Your task to perform on an android device: View the shopping cart on newegg.com. Search for usb-c to usb-a on newegg.com, select the first entry, add it to the cart, then select checkout. Image 0: 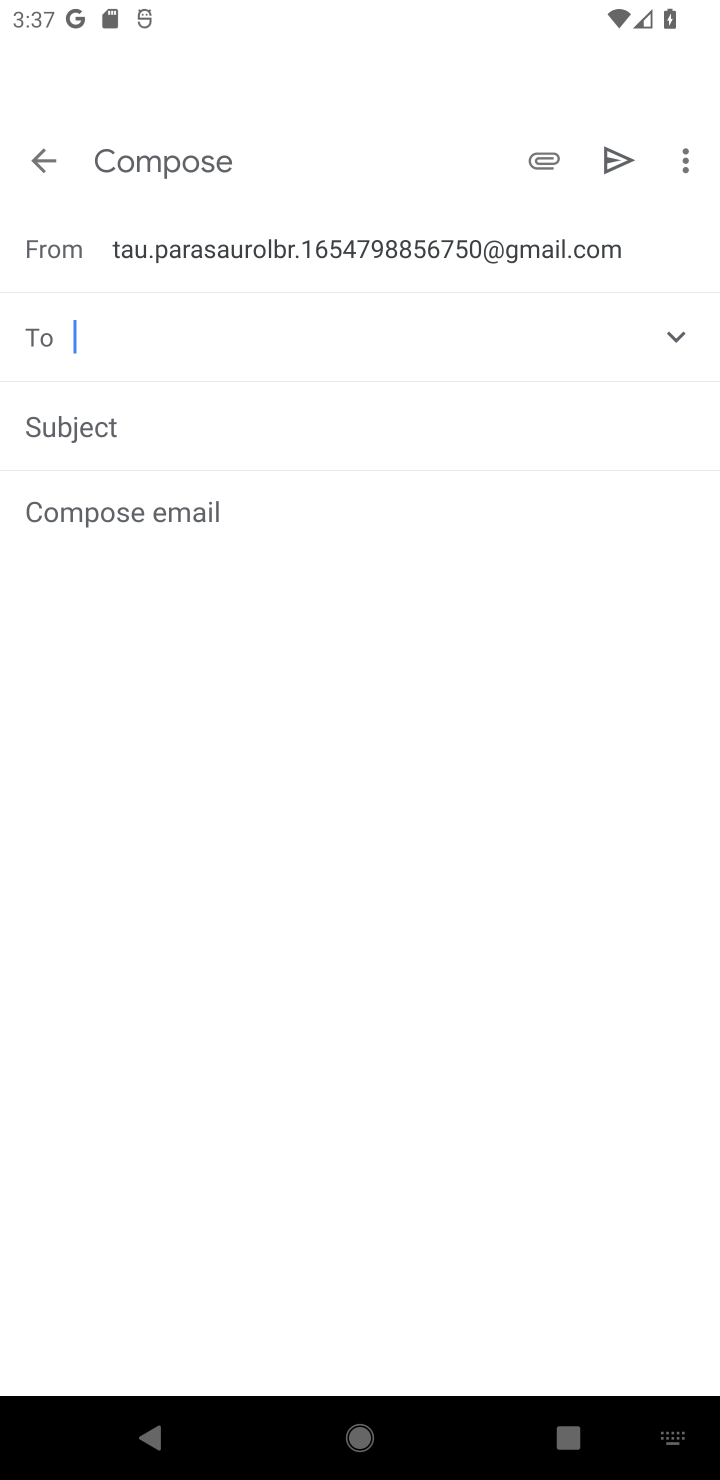
Step 0: press home button
Your task to perform on an android device: View the shopping cart on newegg.com. Search for usb-c to usb-a on newegg.com, select the first entry, add it to the cart, then select checkout. Image 1: 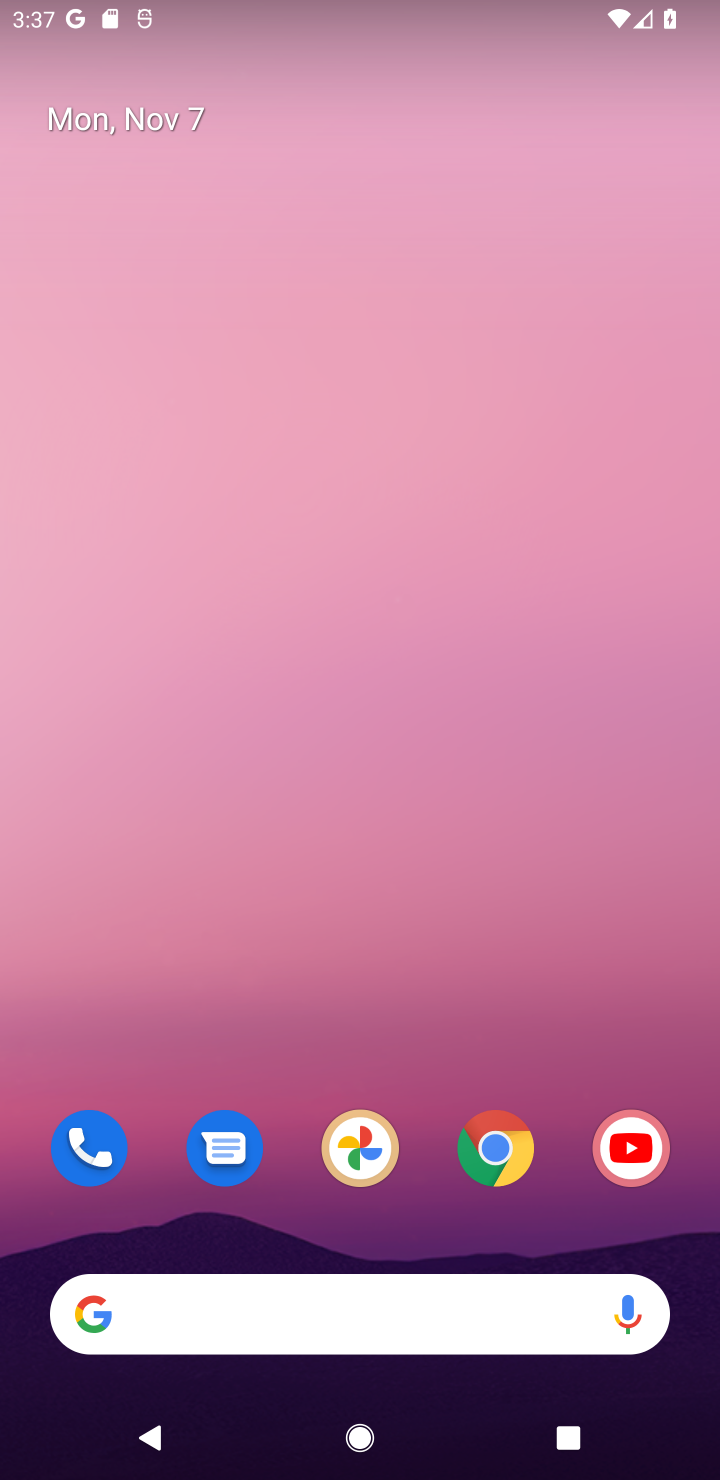
Step 1: drag from (511, 1206) to (538, 33)
Your task to perform on an android device: View the shopping cart on newegg.com. Search for usb-c to usb-a on newegg.com, select the first entry, add it to the cart, then select checkout. Image 2: 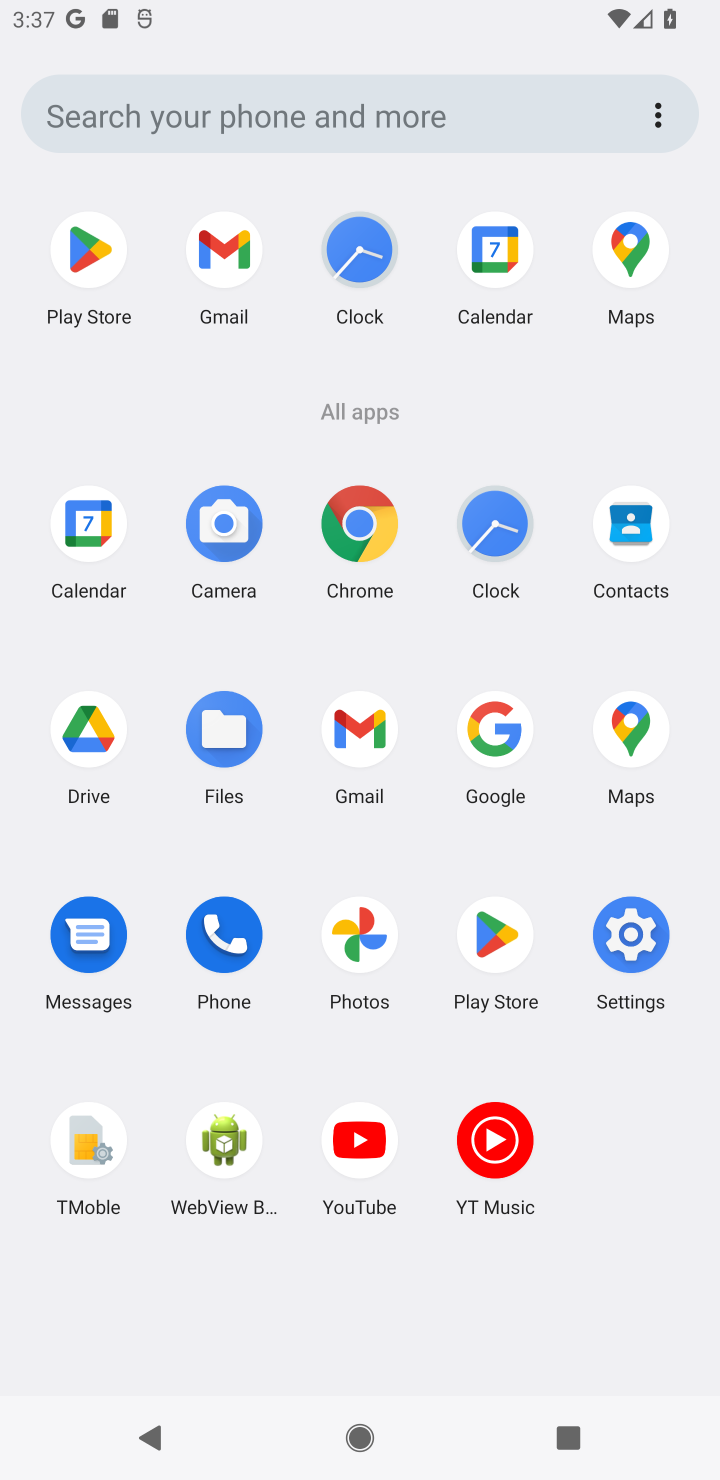
Step 2: click (337, 522)
Your task to perform on an android device: View the shopping cart on newegg.com. Search for usb-c to usb-a on newegg.com, select the first entry, add it to the cart, then select checkout. Image 3: 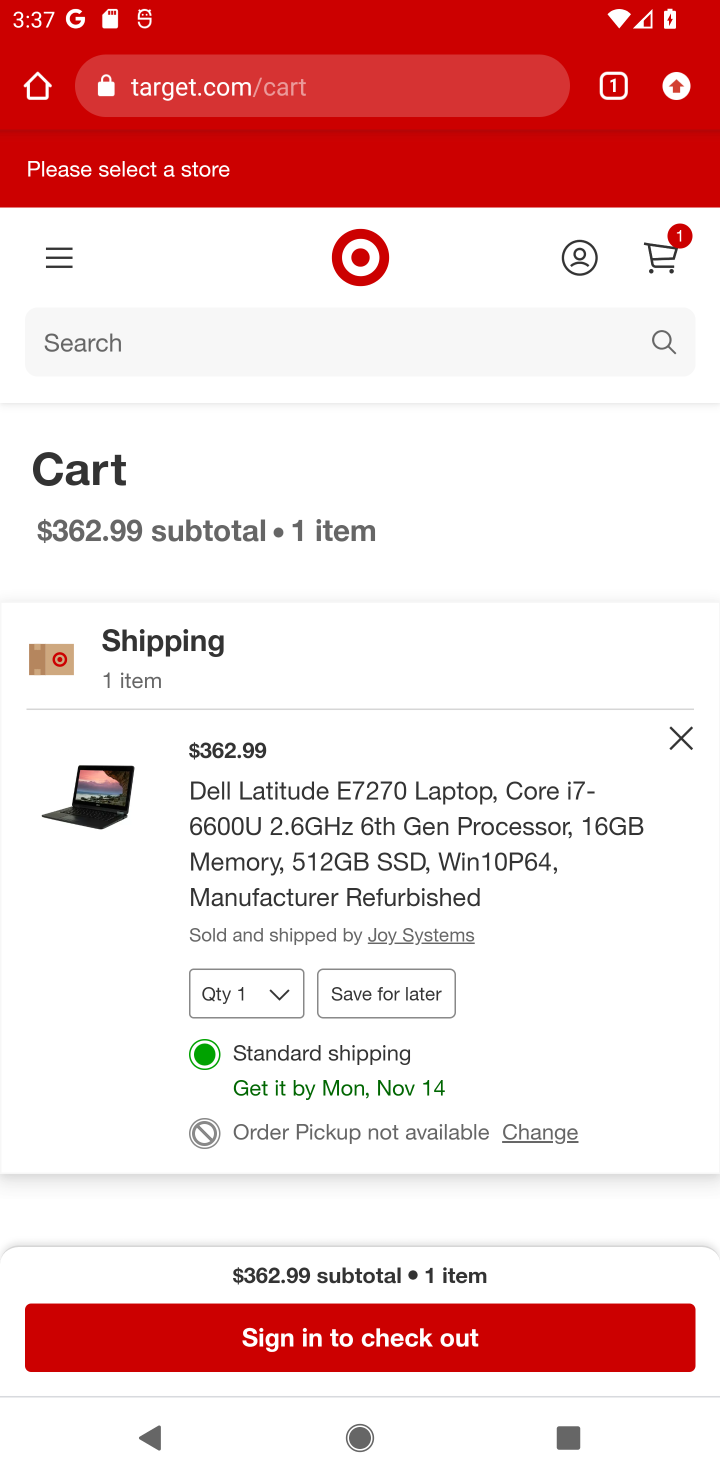
Step 3: click (246, 107)
Your task to perform on an android device: View the shopping cart on newegg.com. Search for usb-c to usb-a on newegg.com, select the first entry, add it to the cart, then select checkout. Image 4: 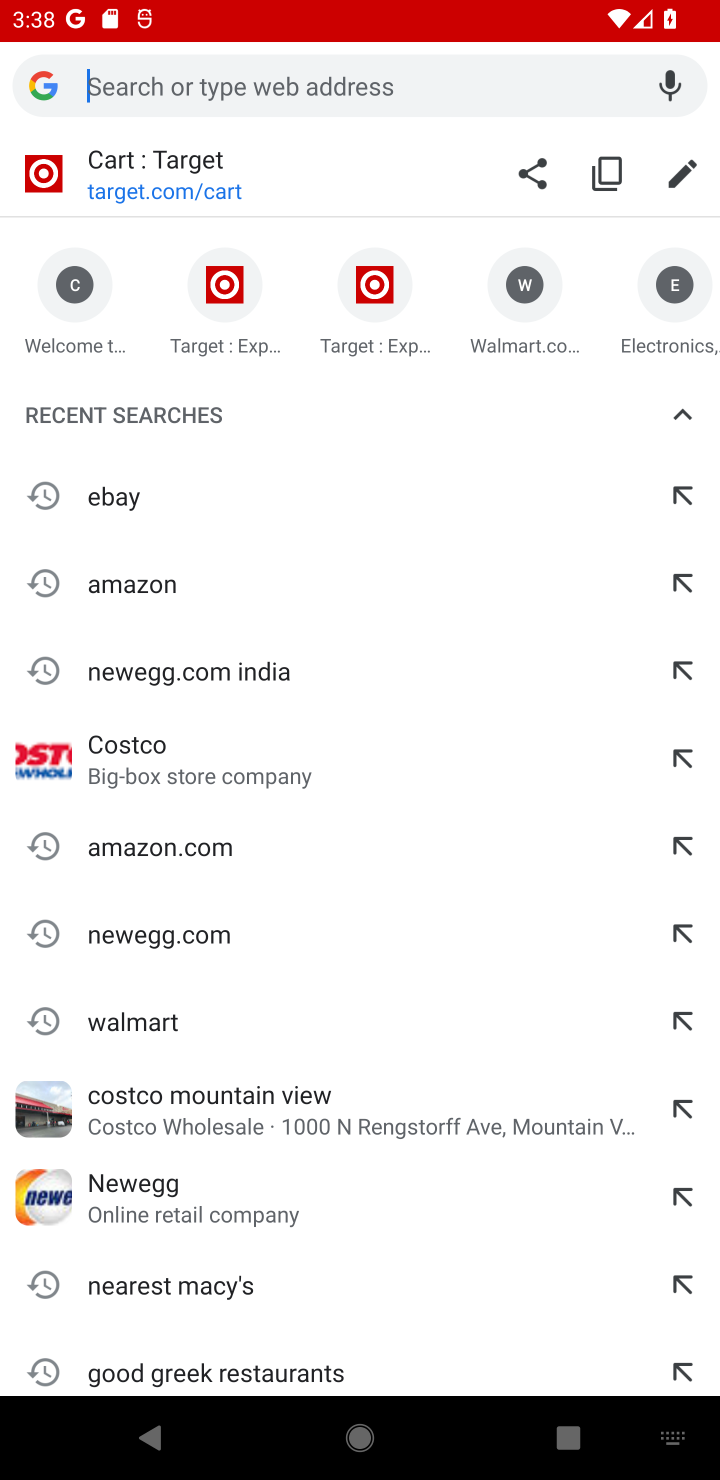
Step 4: type "newegg.com."
Your task to perform on an android device: View the shopping cart on newegg.com. Search for usb-c to usb-a on newegg.com, select the first entry, add it to the cart, then select checkout. Image 5: 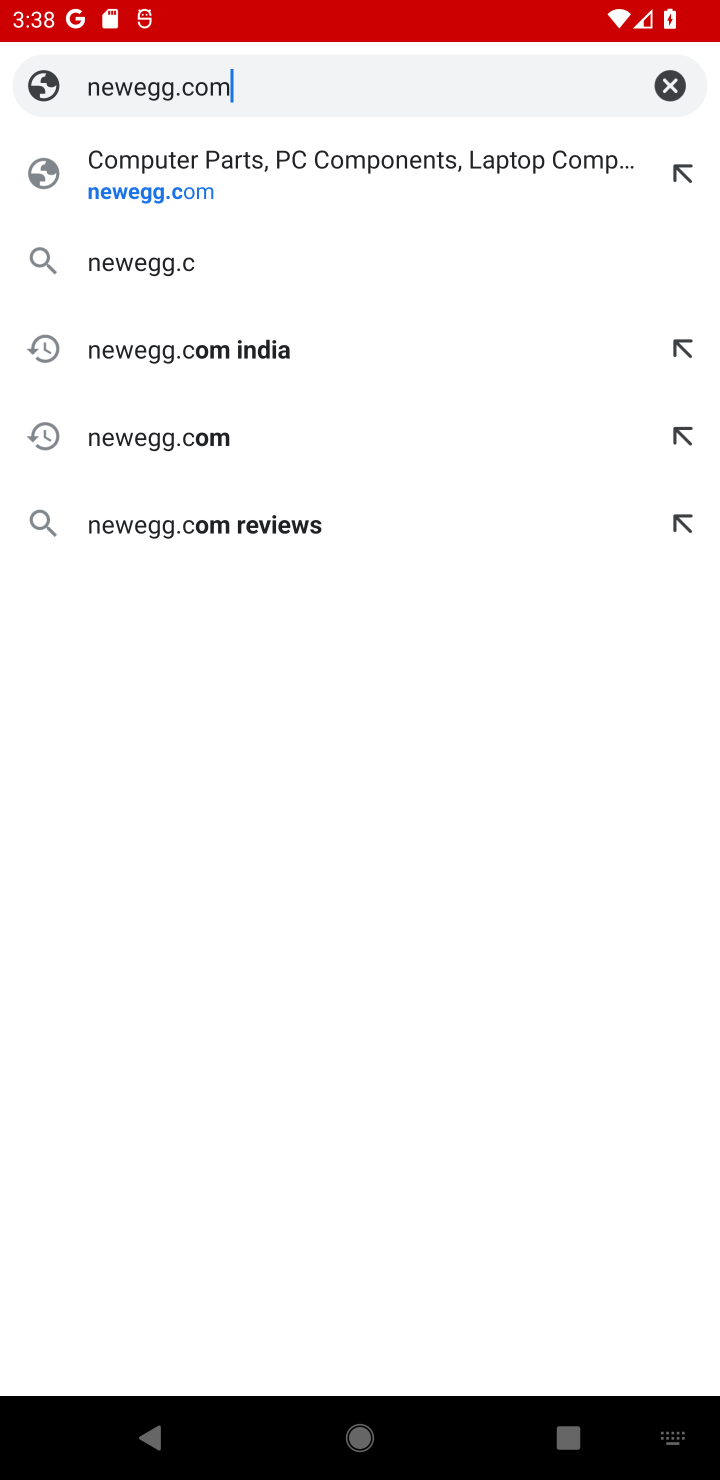
Step 5: press enter
Your task to perform on an android device: View the shopping cart on newegg.com. Search for usb-c to usb-a on newegg.com, select the first entry, add it to the cart, then select checkout. Image 6: 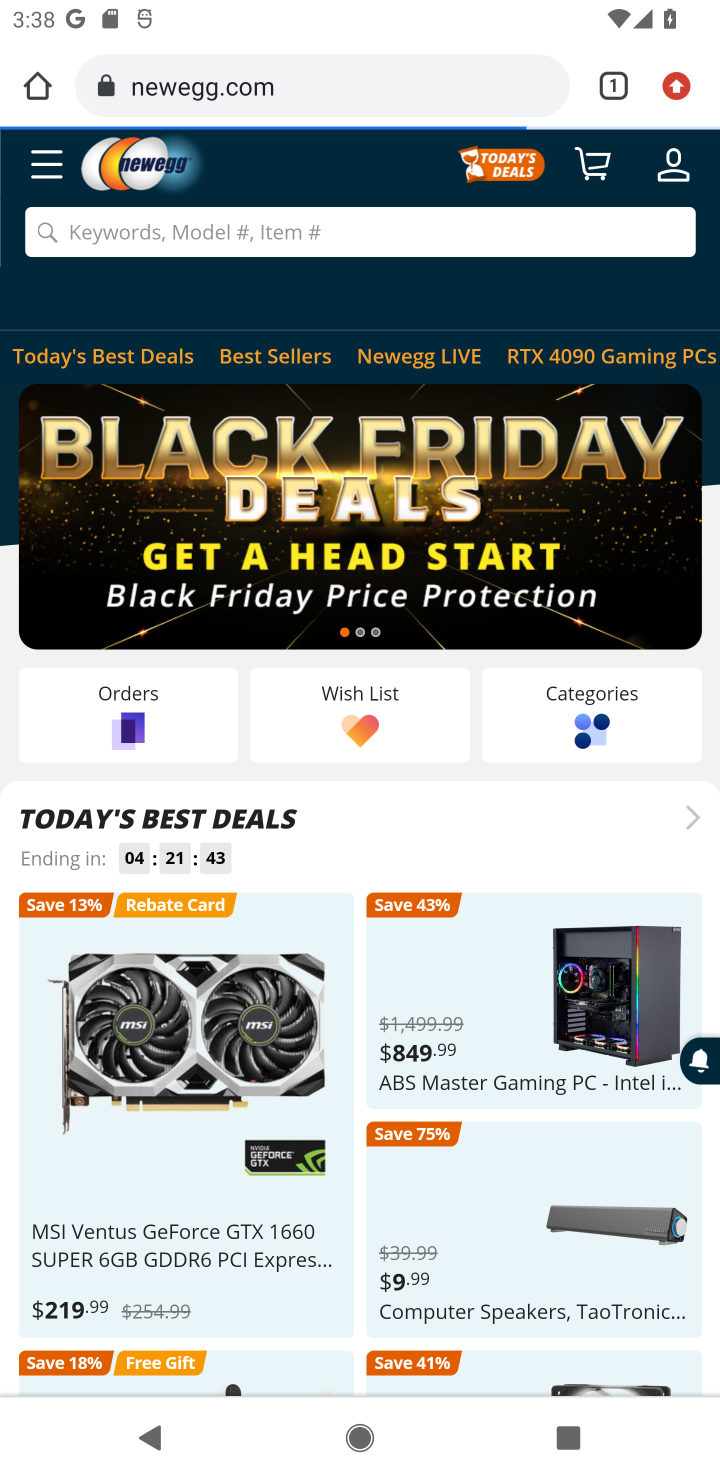
Step 6: click (458, 237)
Your task to perform on an android device: View the shopping cart on newegg.com. Search for usb-c to usb-a on newegg.com, select the first entry, add it to the cart, then select checkout. Image 7: 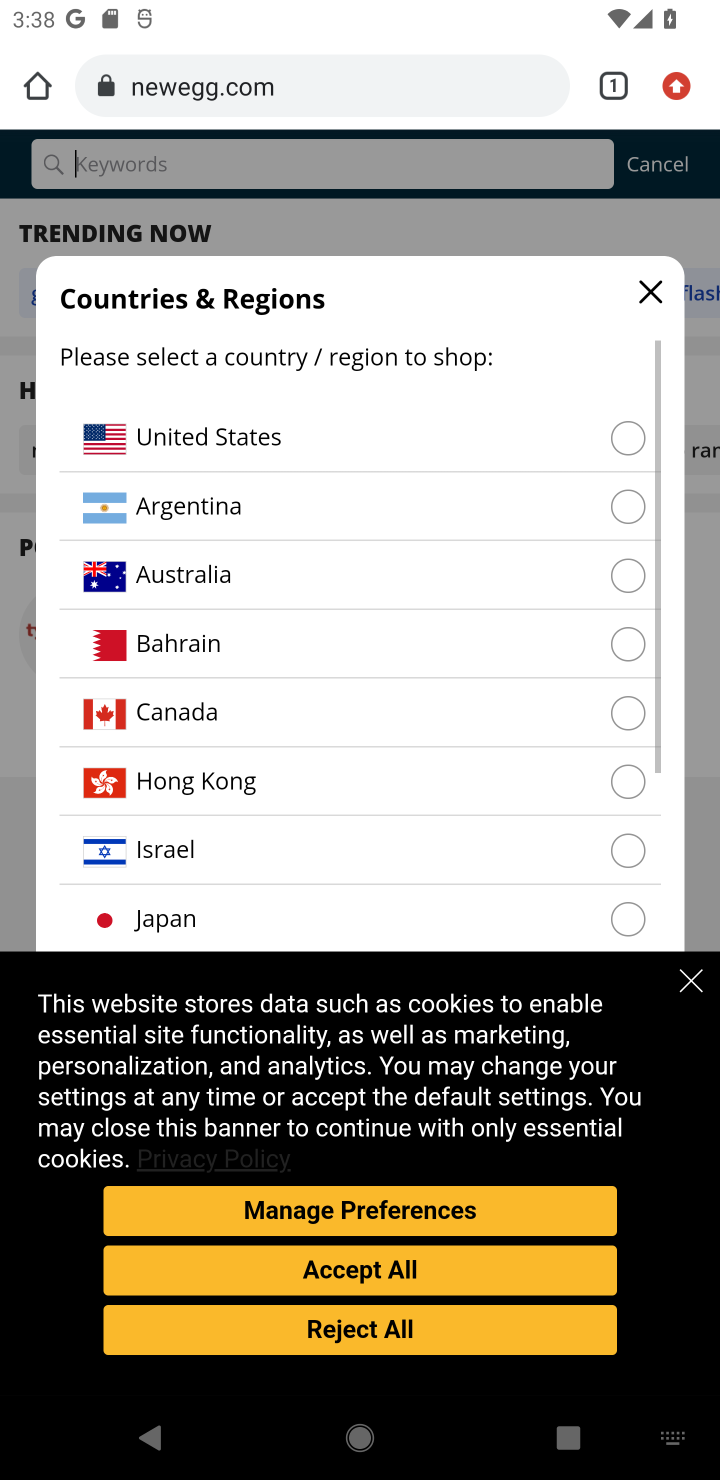
Step 7: click (267, 438)
Your task to perform on an android device: View the shopping cart on newegg.com. Search for usb-c to usb-a on newegg.com, select the first entry, add it to the cart, then select checkout. Image 8: 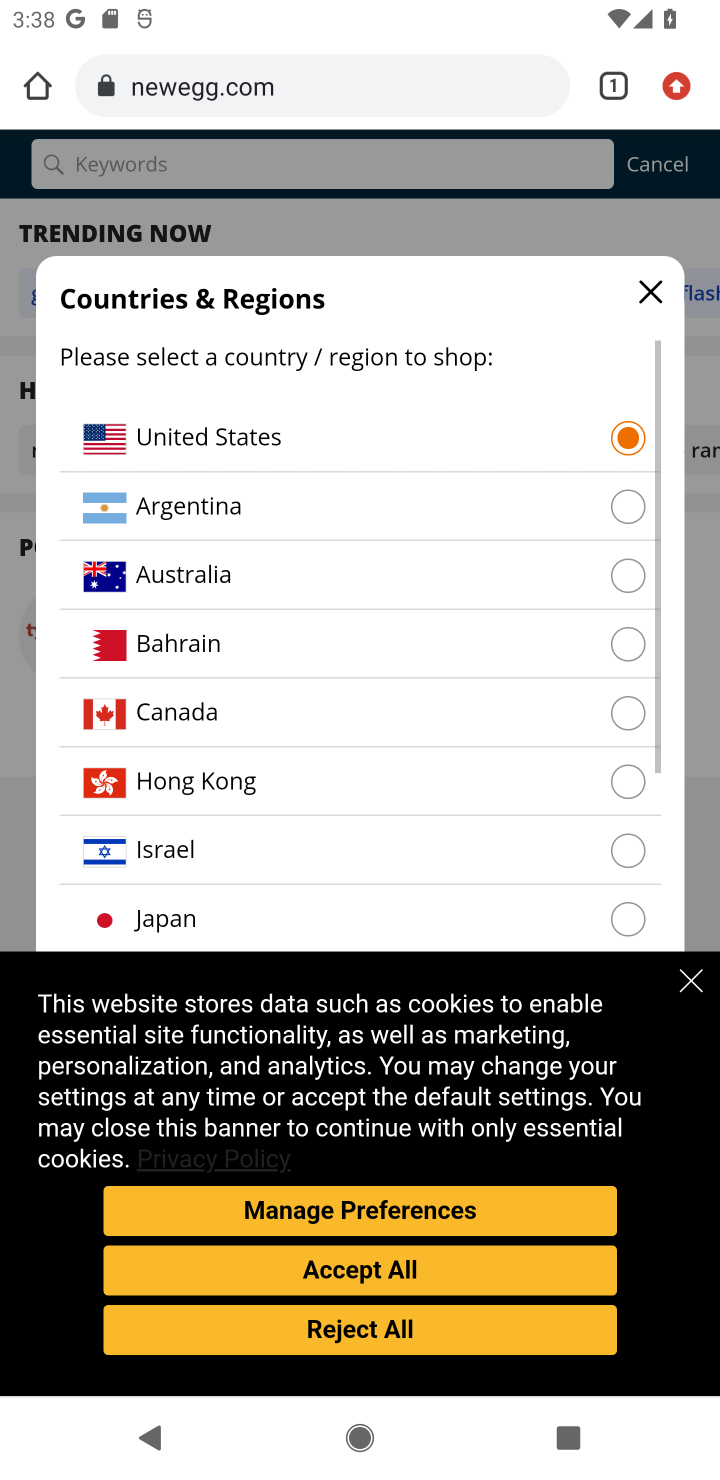
Step 8: click (681, 983)
Your task to perform on an android device: View the shopping cart on newegg.com. Search for usb-c to usb-a on newegg.com, select the first entry, add it to the cart, then select checkout. Image 9: 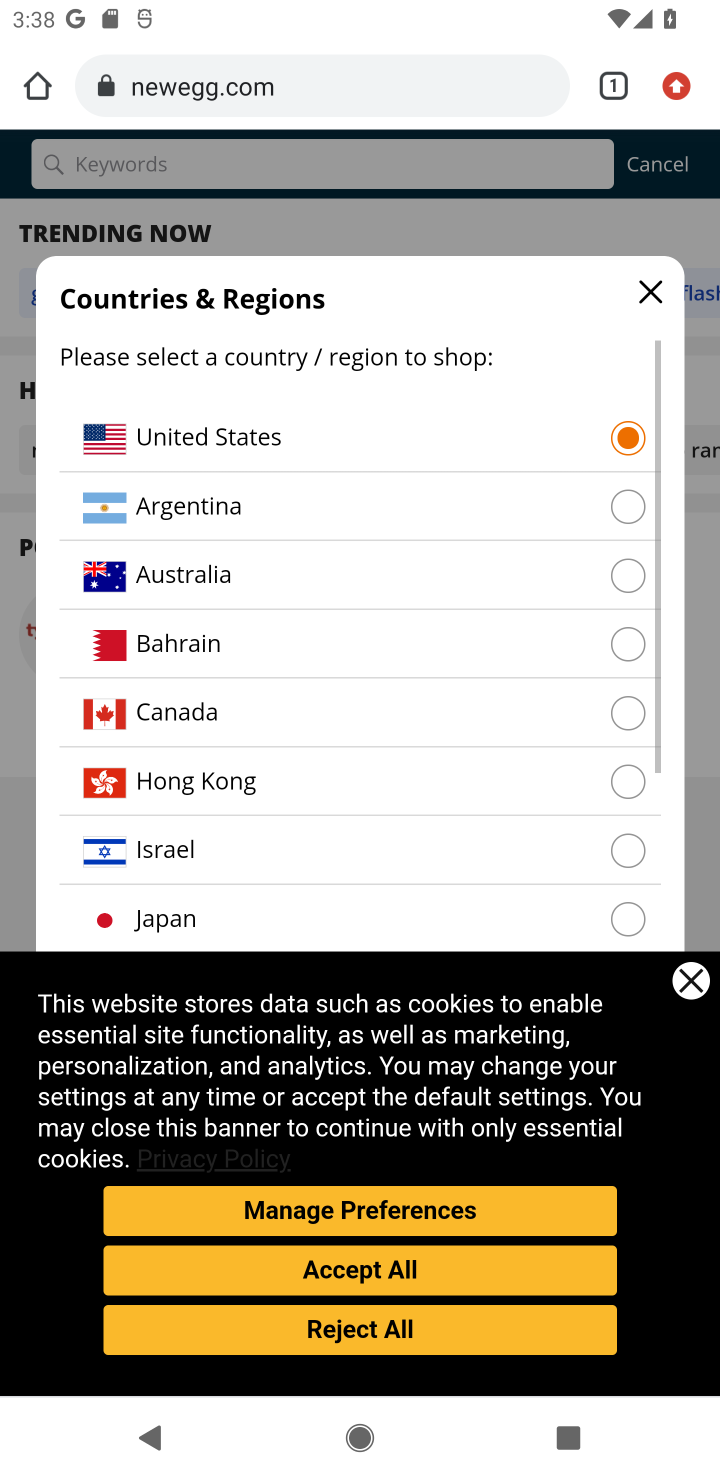
Step 9: click (695, 987)
Your task to perform on an android device: View the shopping cart on newegg.com. Search for usb-c to usb-a on newegg.com, select the first entry, add it to the cart, then select checkout. Image 10: 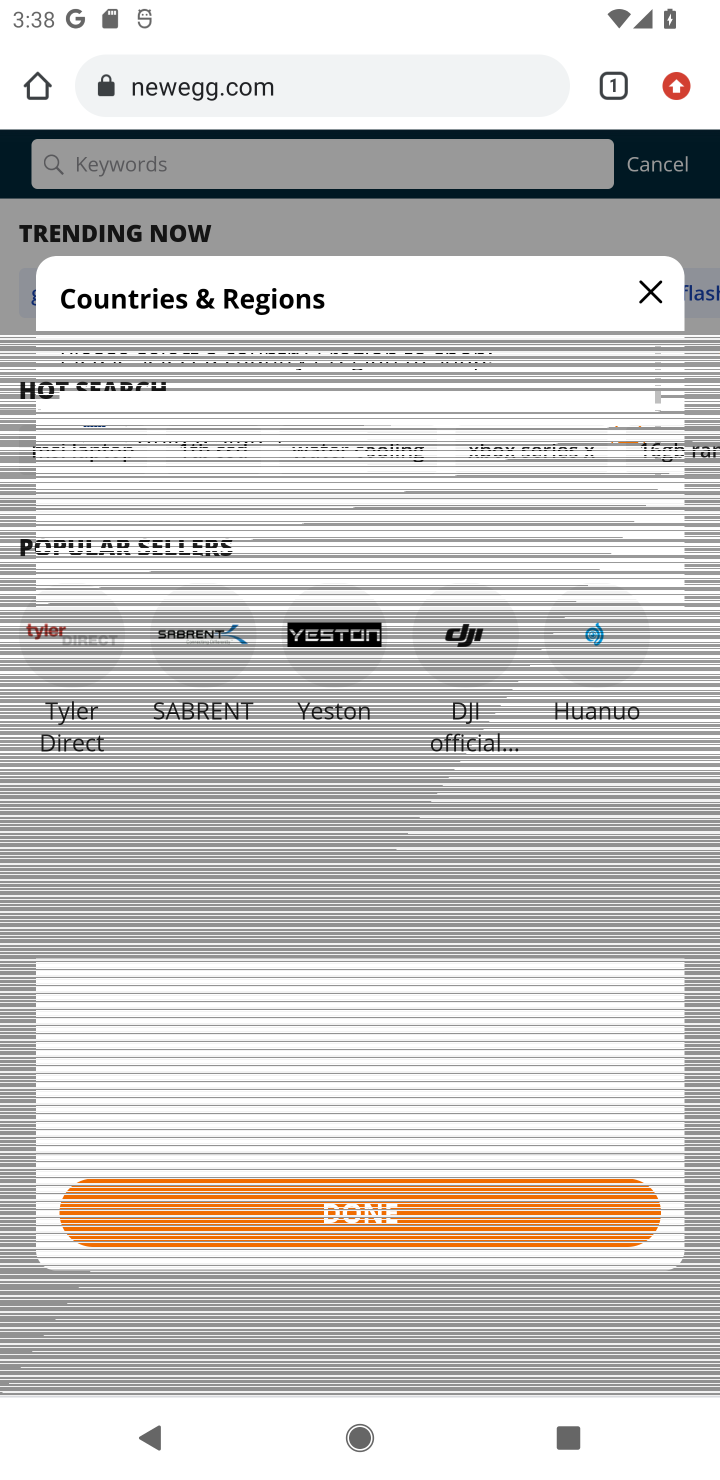
Step 10: click (371, 1216)
Your task to perform on an android device: View the shopping cart on newegg.com. Search for usb-c to usb-a on newegg.com, select the first entry, add it to the cart, then select checkout. Image 11: 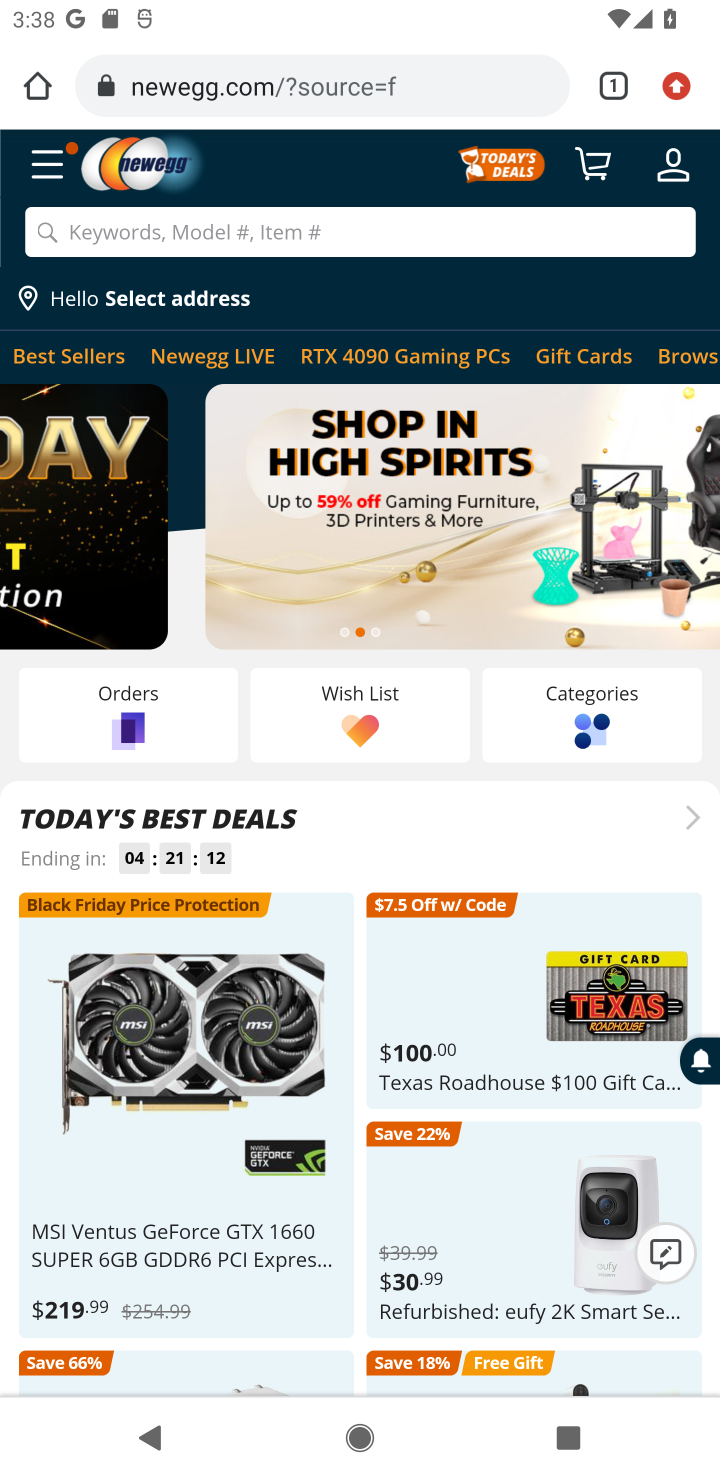
Step 11: type "usb-c to usb-a "
Your task to perform on an android device: View the shopping cart on newegg.com. Search for usb-c to usb-a on newegg.com, select the first entry, add it to the cart, then select checkout. Image 12: 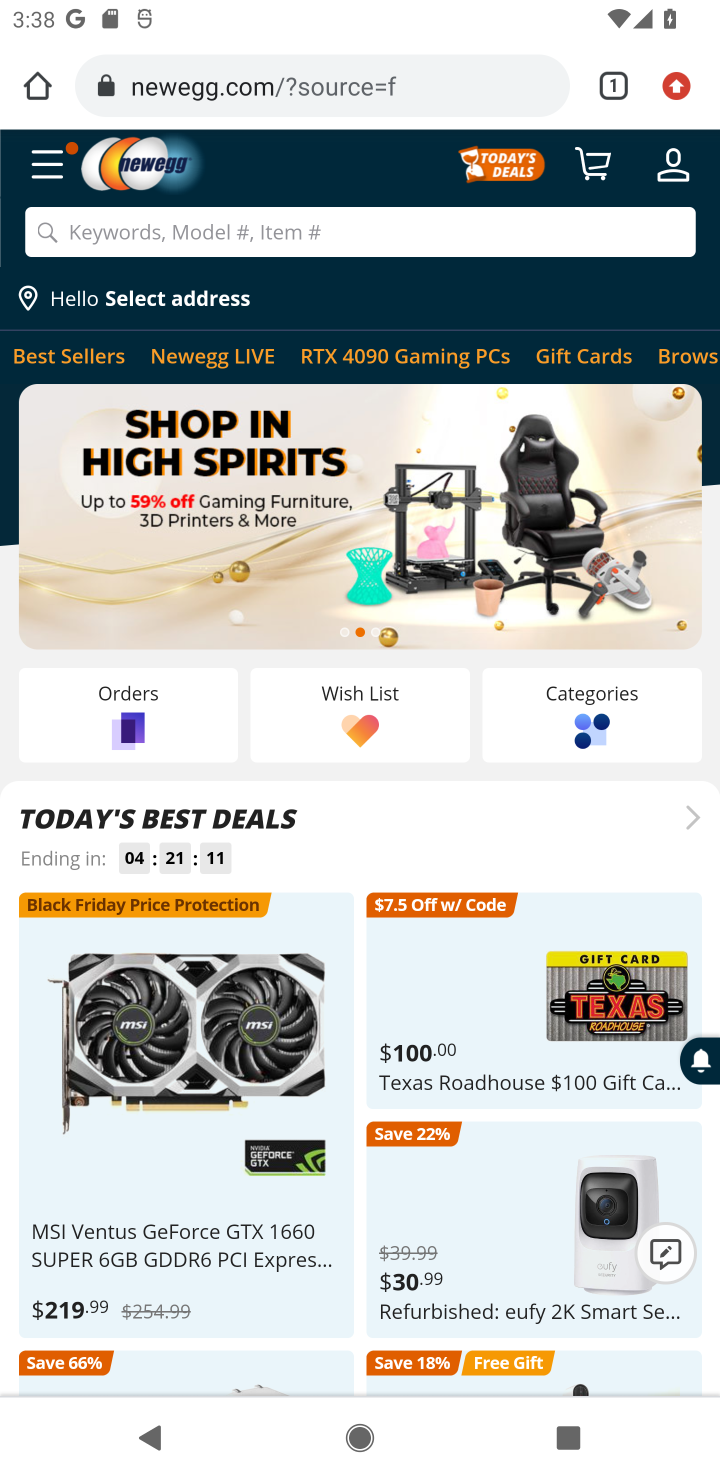
Step 12: press enter
Your task to perform on an android device: View the shopping cart on newegg.com. Search for usb-c to usb-a on newegg.com, select the first entry, add it to the cart, then select checkout. Image 13: 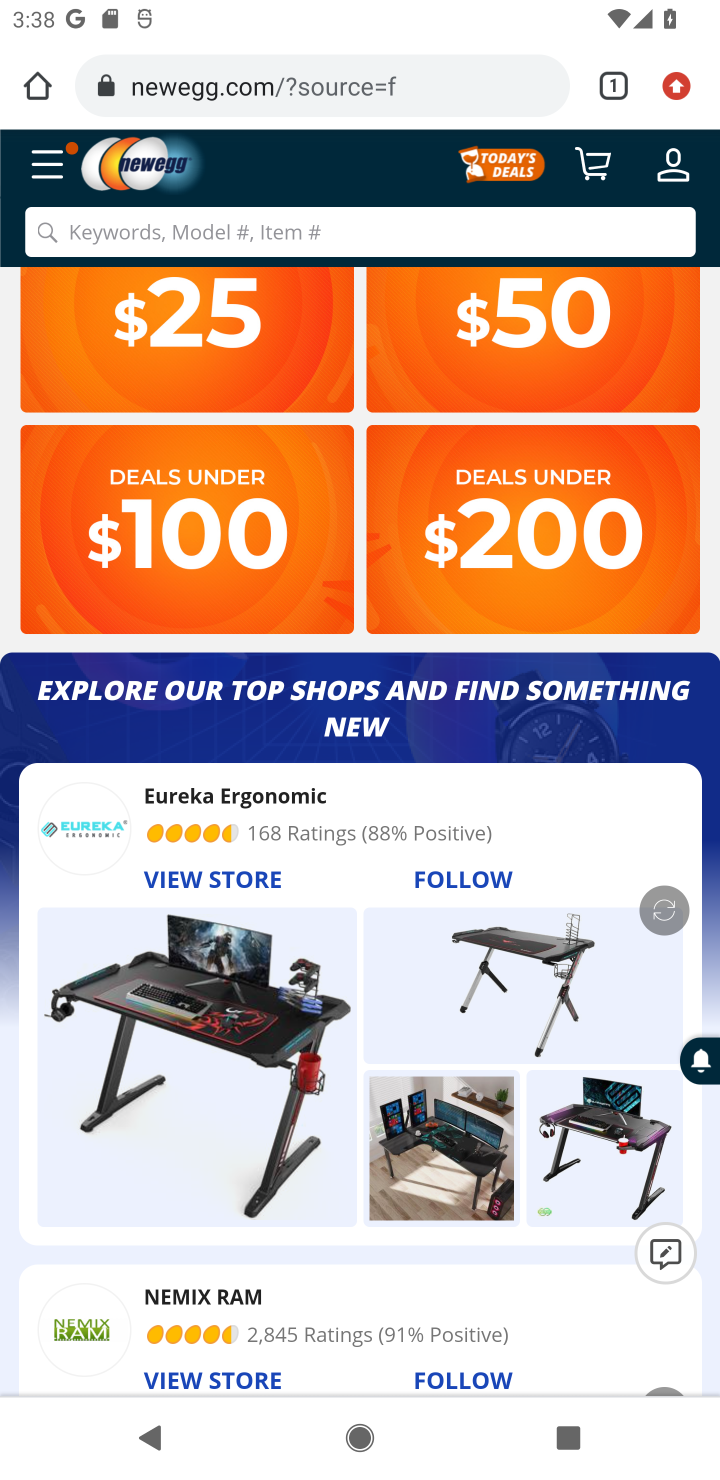
Step 13: click (285, 244)
Your task to perform on an android device: View the shopping cart on newegg.com. Search for usb-c to usb-a on newegg.com, select the first entry, add it to the cart, then select checkout. Image 14: 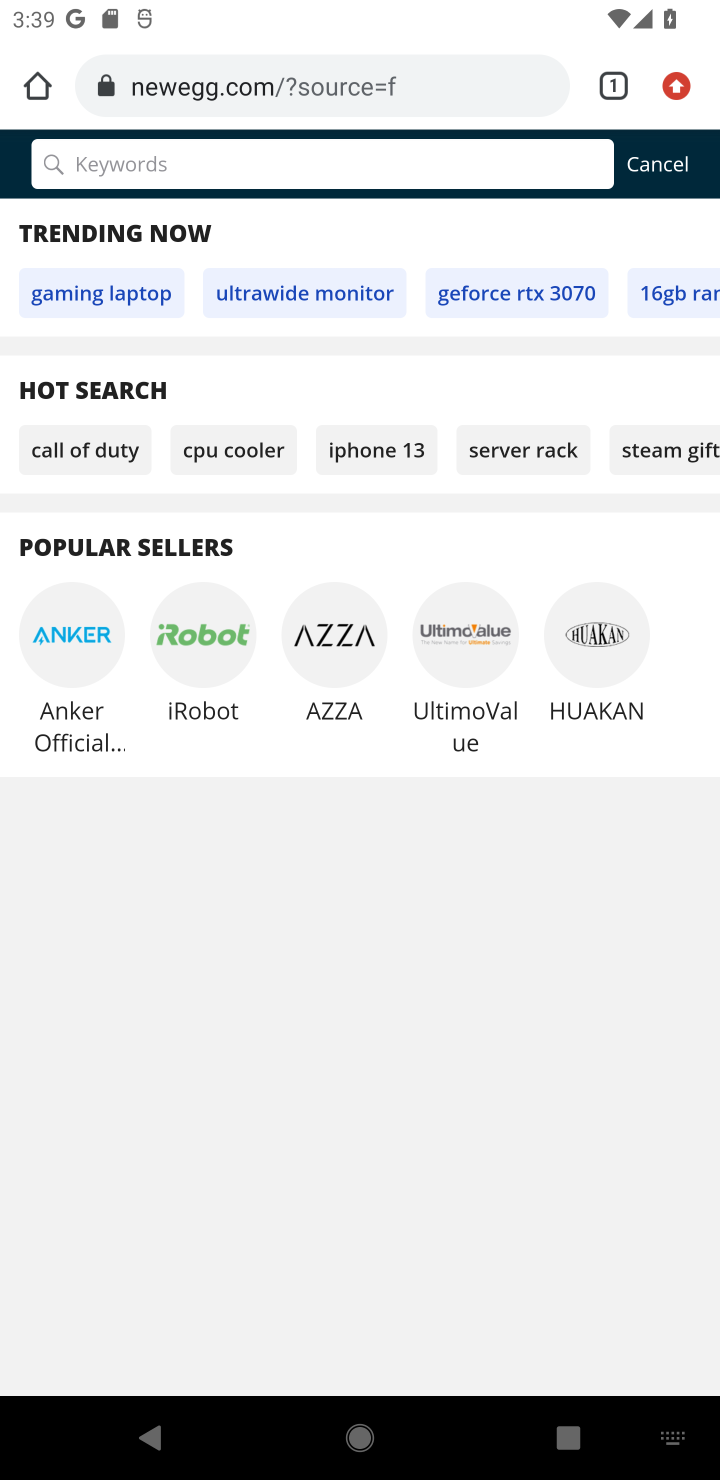
Step 14: type "usb-c to usb-a "
Your task to perform on an android device: View the shopping cart on newegg.com. Search for usb-c to usb-a on newegg.com, select the first entry, add it to the cart, then select checkout. Image 15: 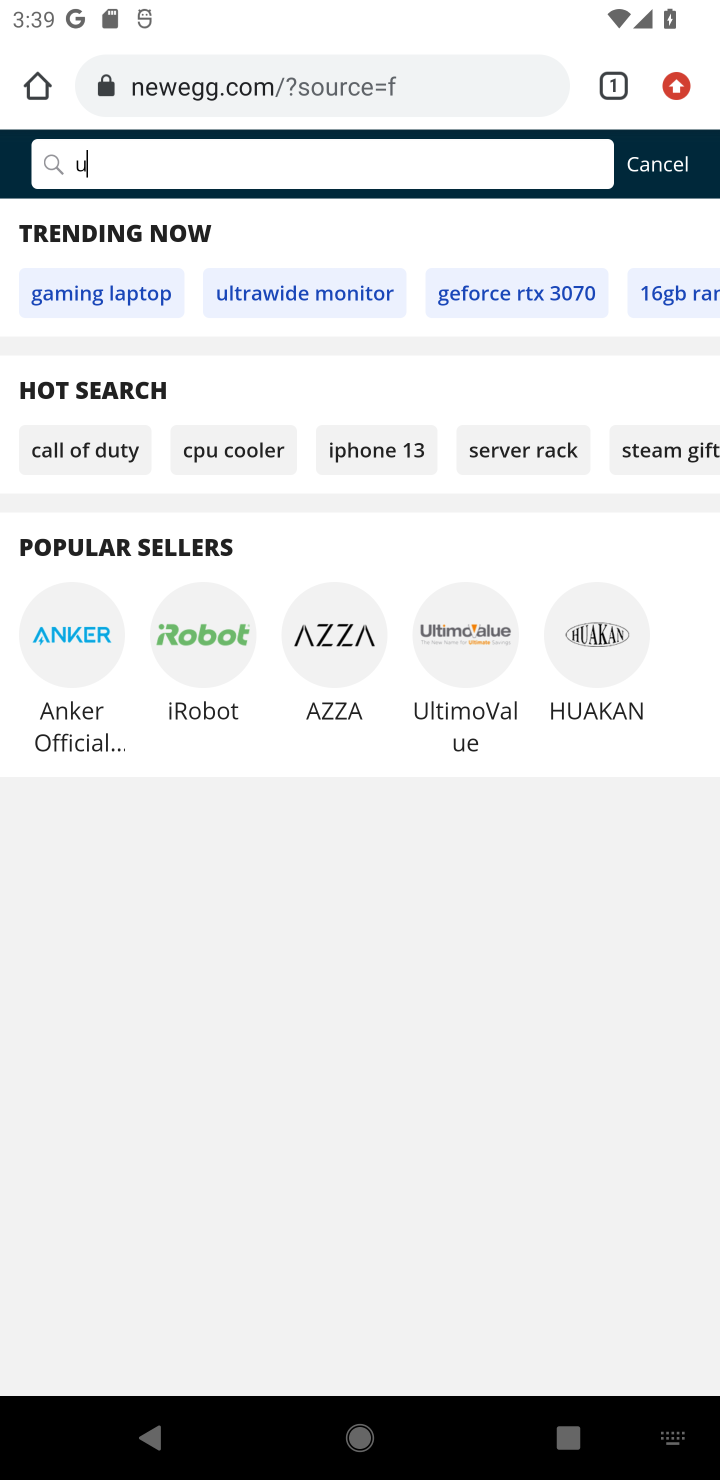
Step 15: press enter
Your task to perform on an android device: View the shopping cart on newegg.com. Search for usb-c to usb-a on newegg.com, select the first entry, add it to the cart, then select checkout. Image 16: 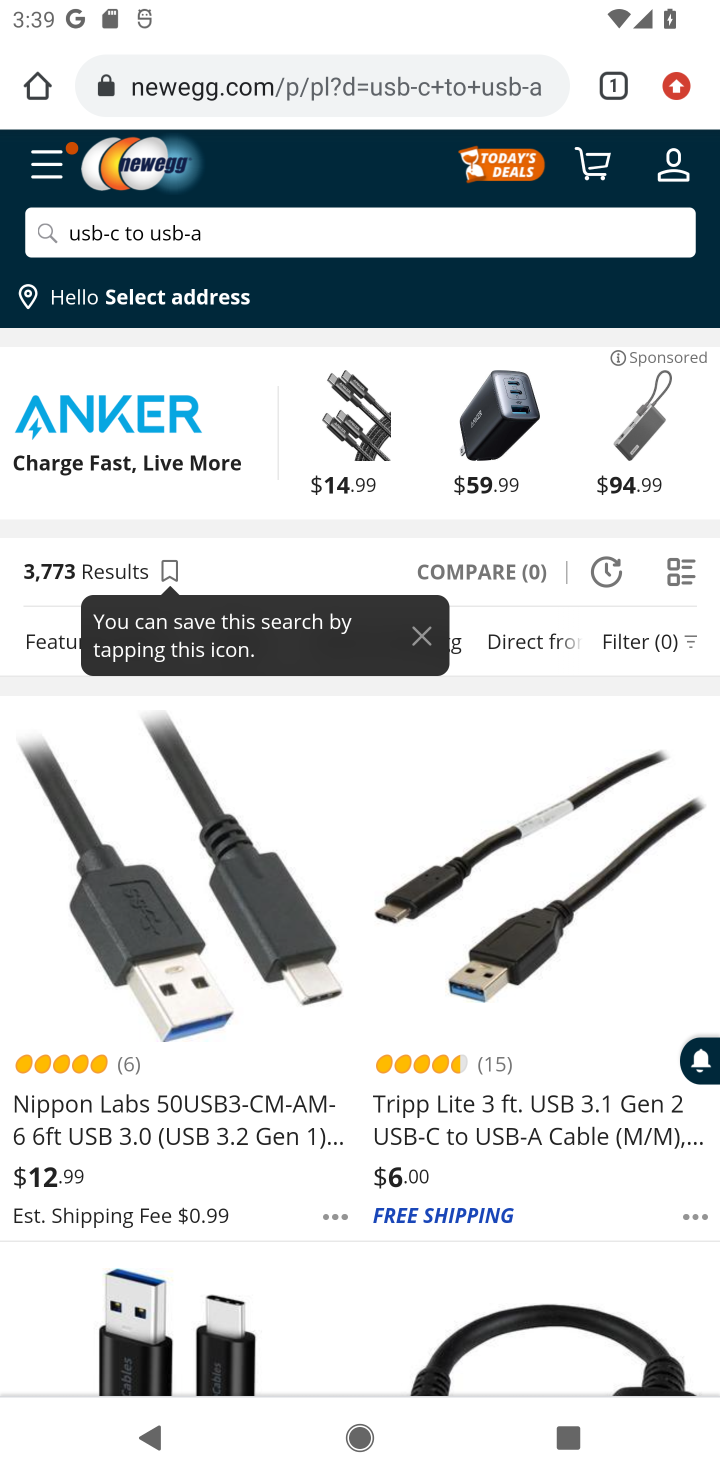
Step 16: click (159, 925)
Your task to perform on an android device: View the shopping cart on newegg.com. Search for usb-c to usb-a on newegg.com, select the first entry, add it to the cart, then select checkout. Image 17: 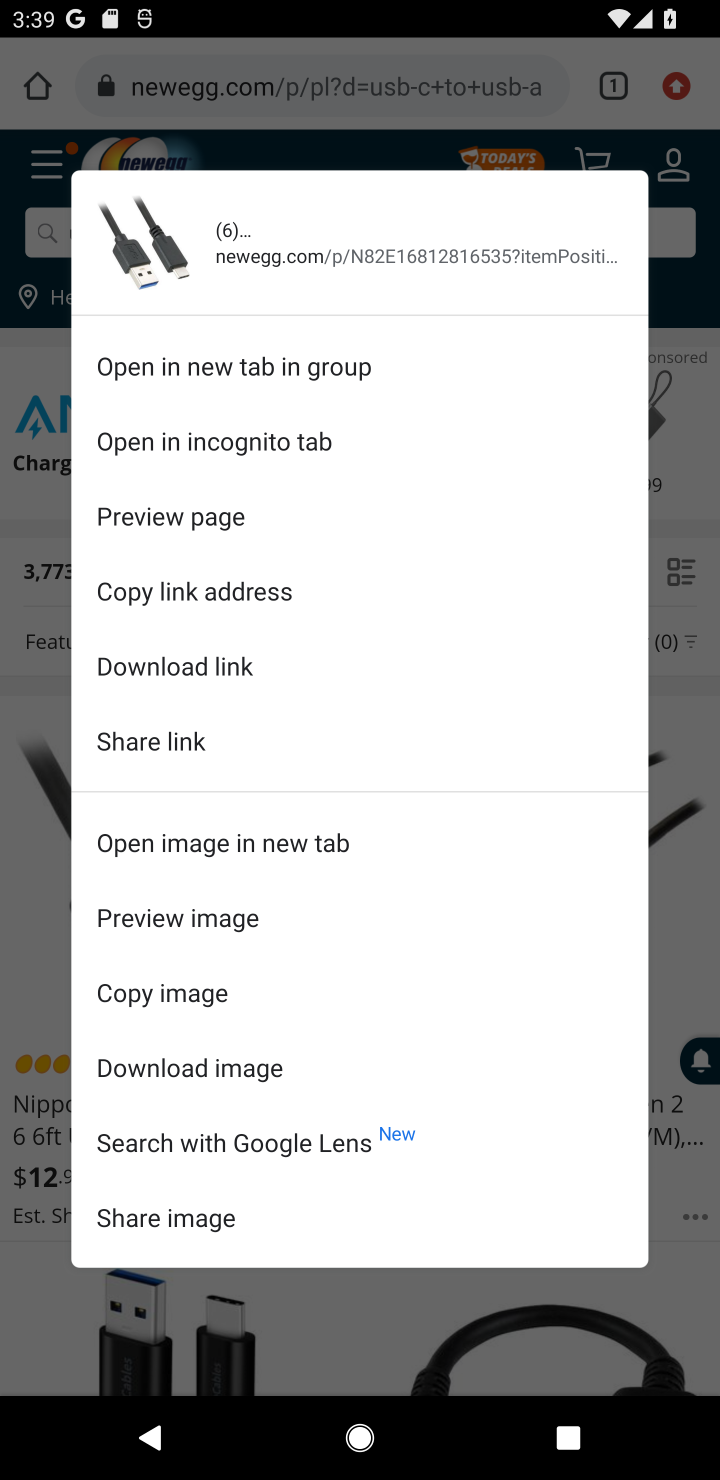
Step 17: click (41, 843)
Your task to perform on an android device: View the shopping cart on newegg.com. Search for usb-c to usb-a on newegg.com, select the first entry, add it to the cart, then select checkout. Image 18: 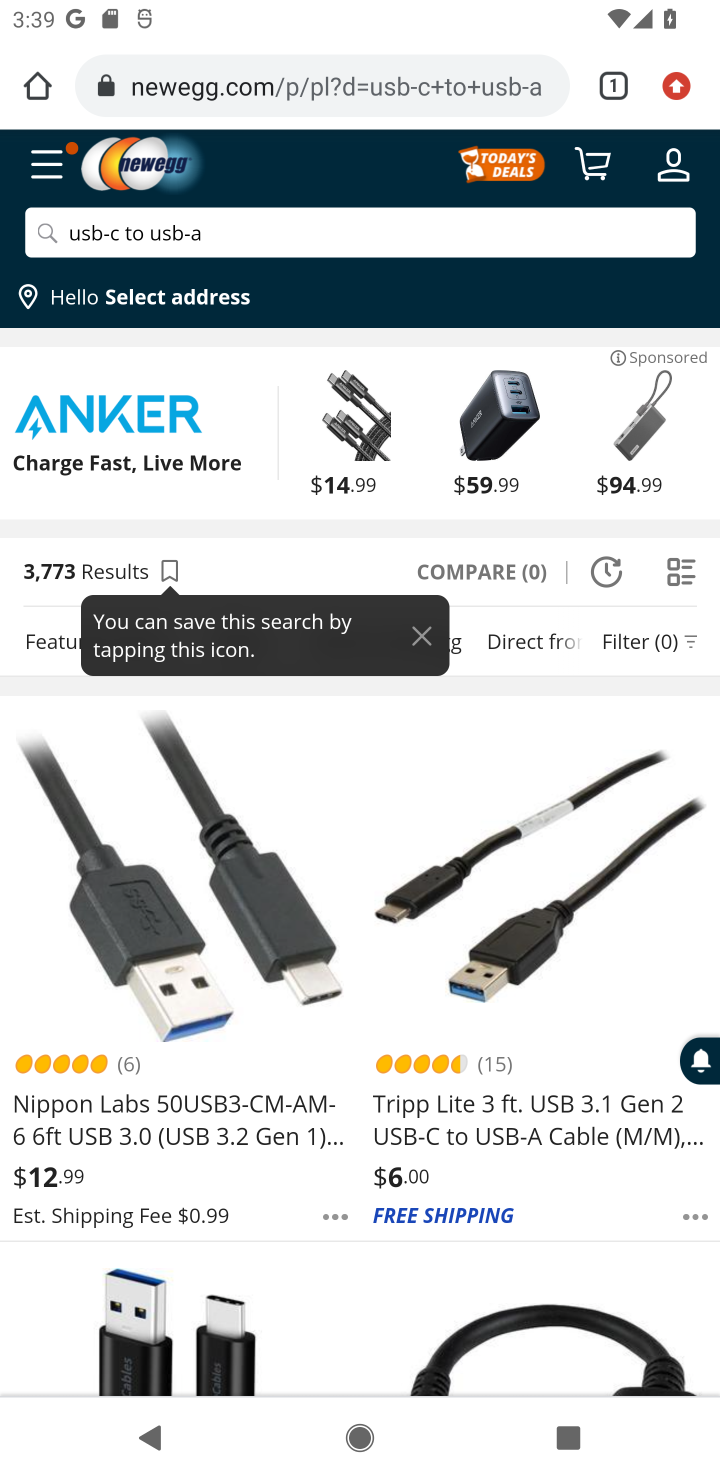
Step 18: click (94, 871)
Your task to perform on an android device: View the shopping cart on newegg.com. Search for usb-c to usb-a on newegg.com, select the first entry, add it to the cart, then select checkout. Image 19: 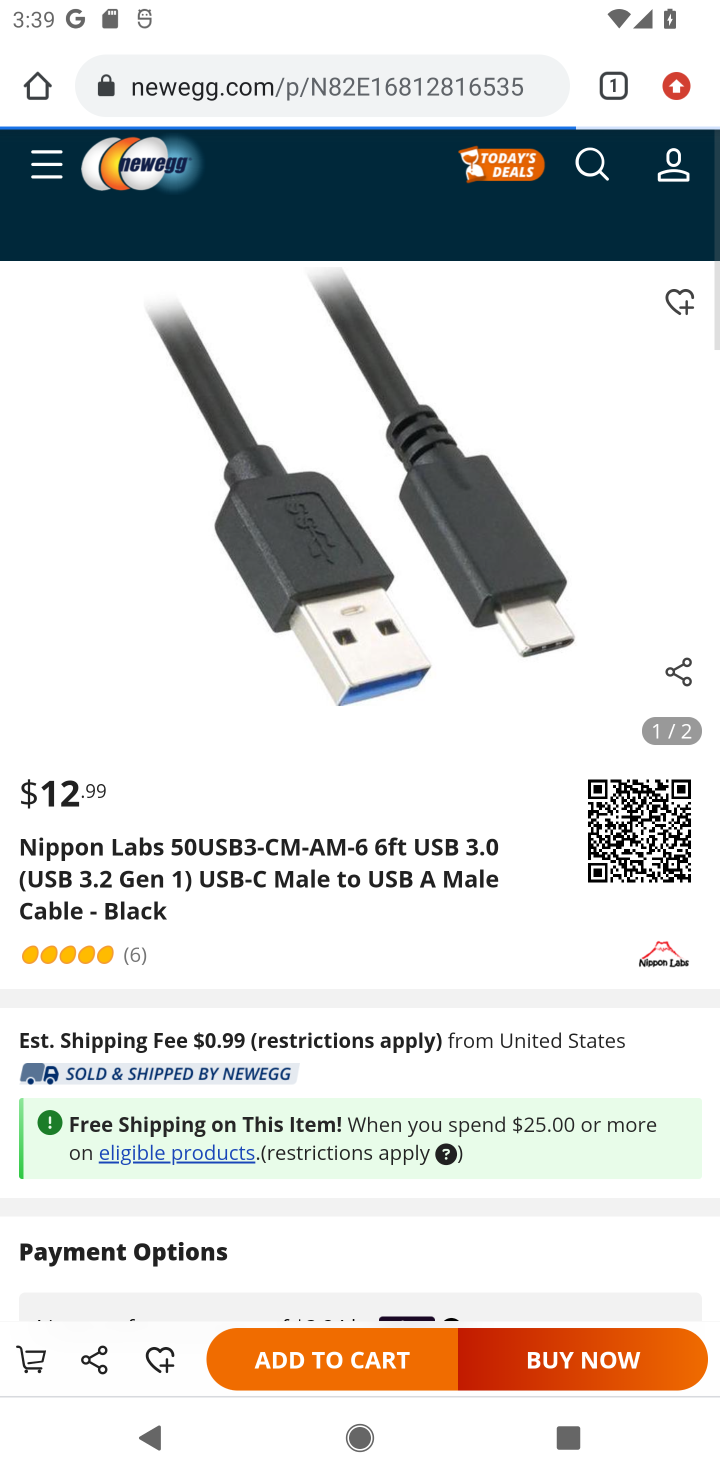
Step 19: click (121, 1099)
Your task to perform on an android device: View the shopping cart on newegg.com. Search for usb-c to usb-a on newegg.com, select the first entry, add it to the cart, then select checkout. Image 20: 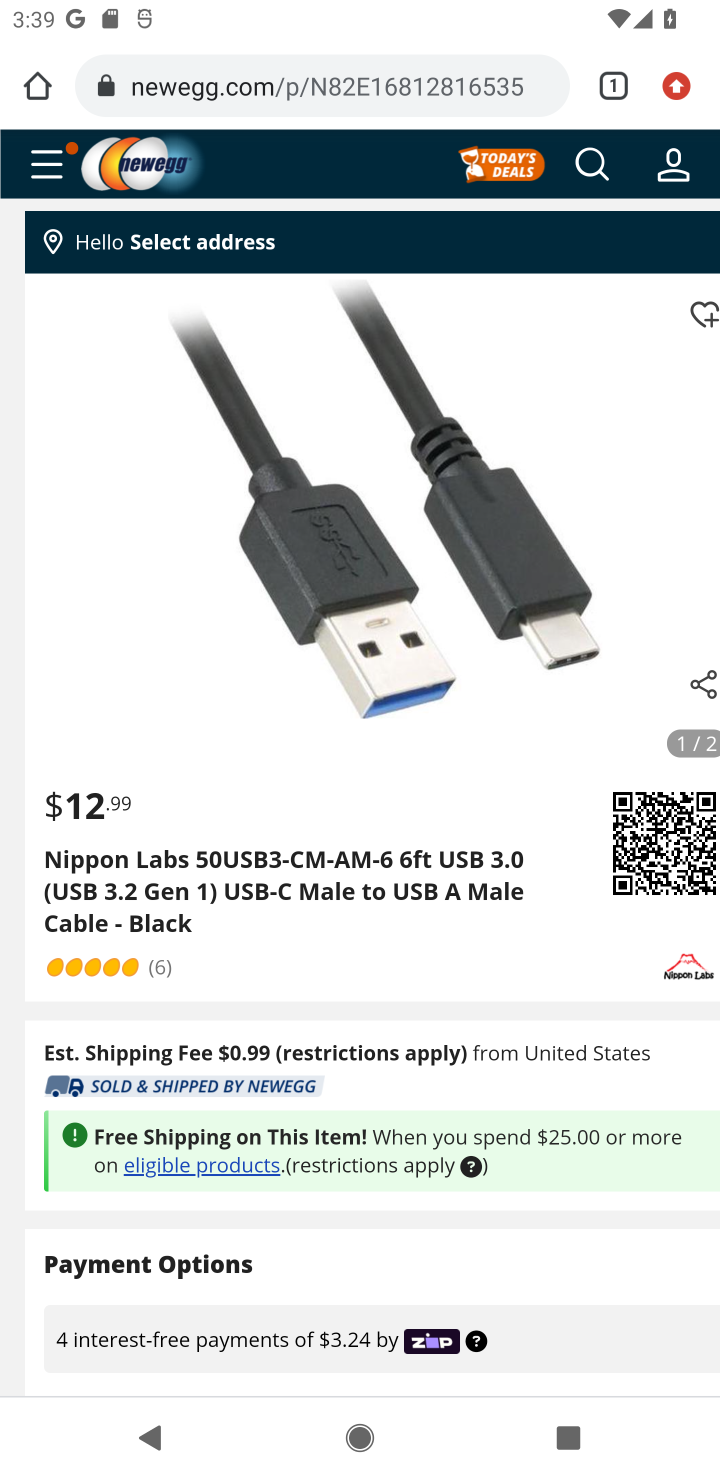
Step 20: click (381, 1354)
Your task to perform on an android device: View the shopping cart on newegg.com. Search for usb-c to usb-a on newegg.com, select the first entry, add it to the cart, then select checkout. Image 21: 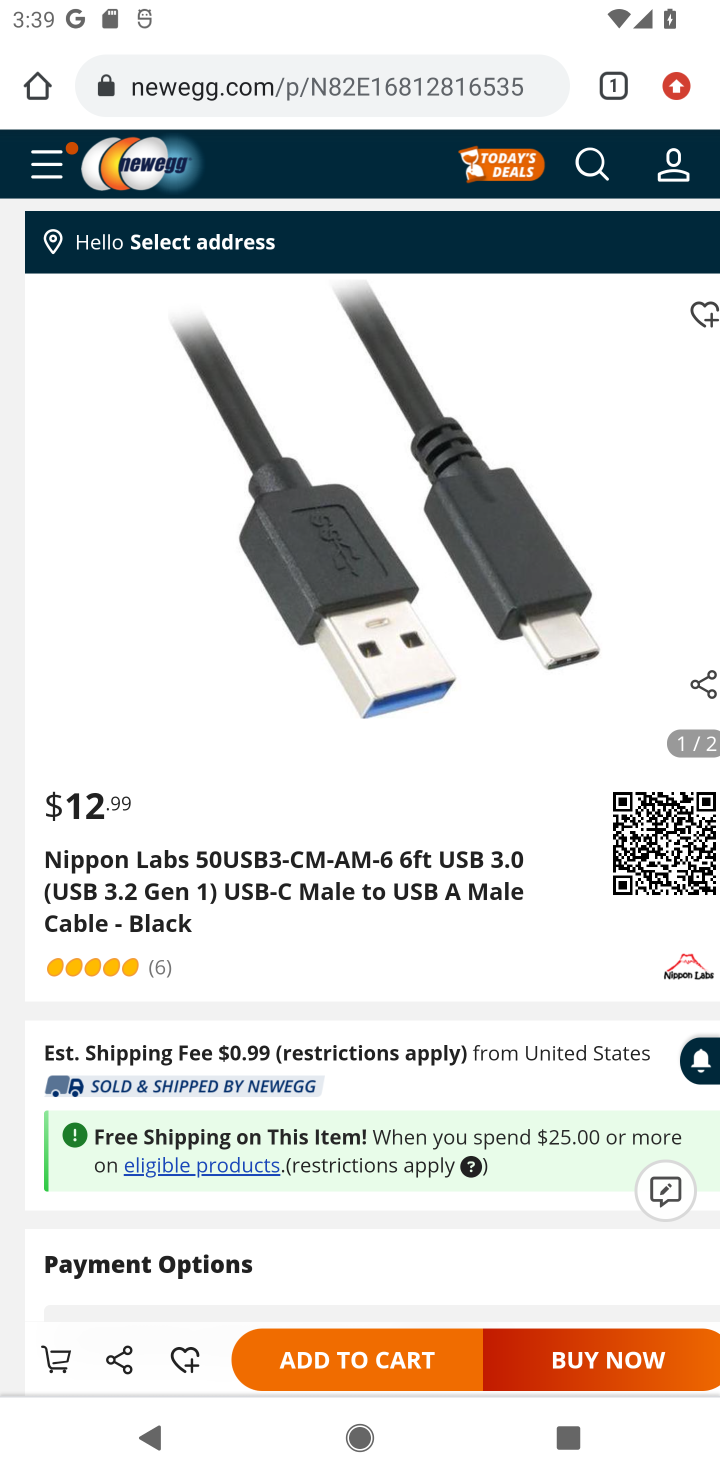
Step 21: click (382, 1354)
Your task to perform on an android device: View the shopping cart on newegg.com. Search for usb-c to usb-a on newegg.com, select the first entry, add it to the cart, then select checkout. Image 22: 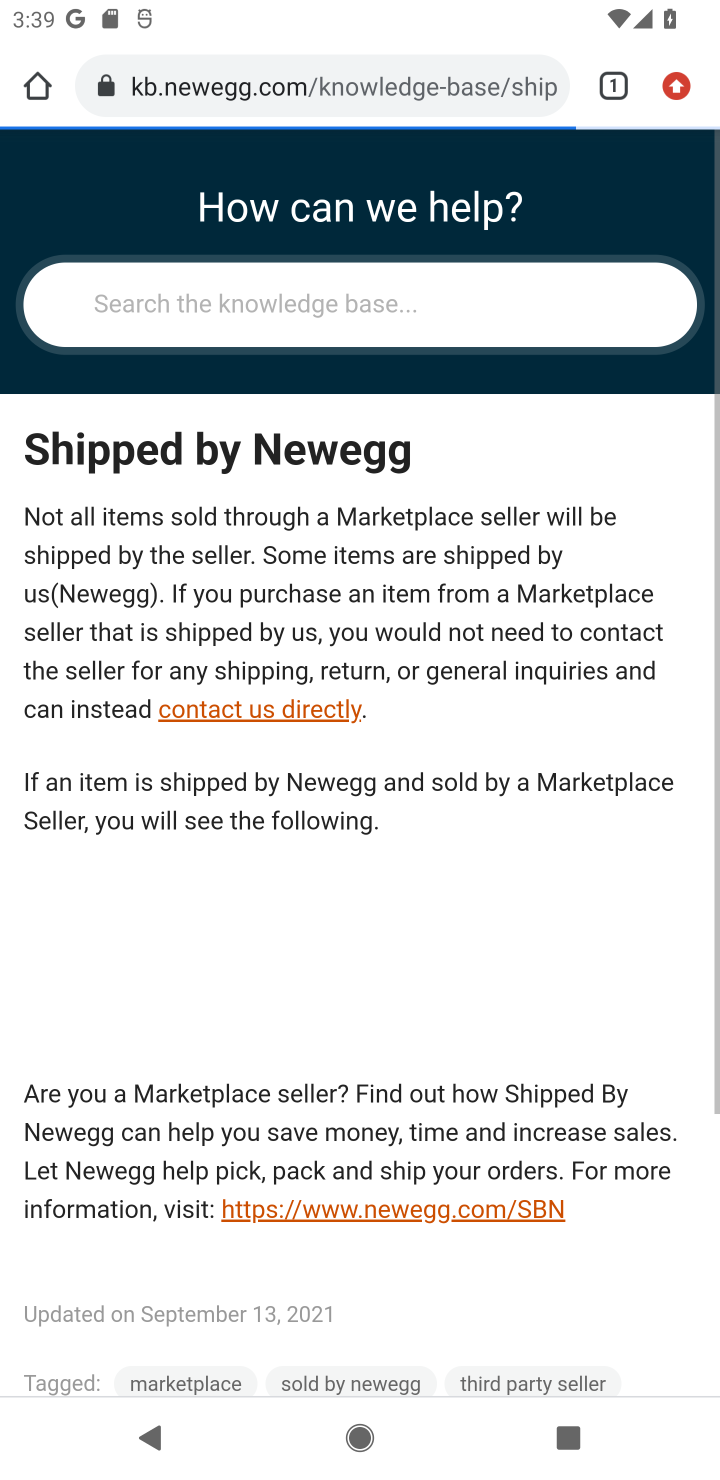
Step 22: click (384, 1354)
Your task to perform on an android device: View the shopping cart on newegg.com. Search for usb-c to usb-a on newegg.com, select the first entry, add it to the cart, then select checkout. Image 23: 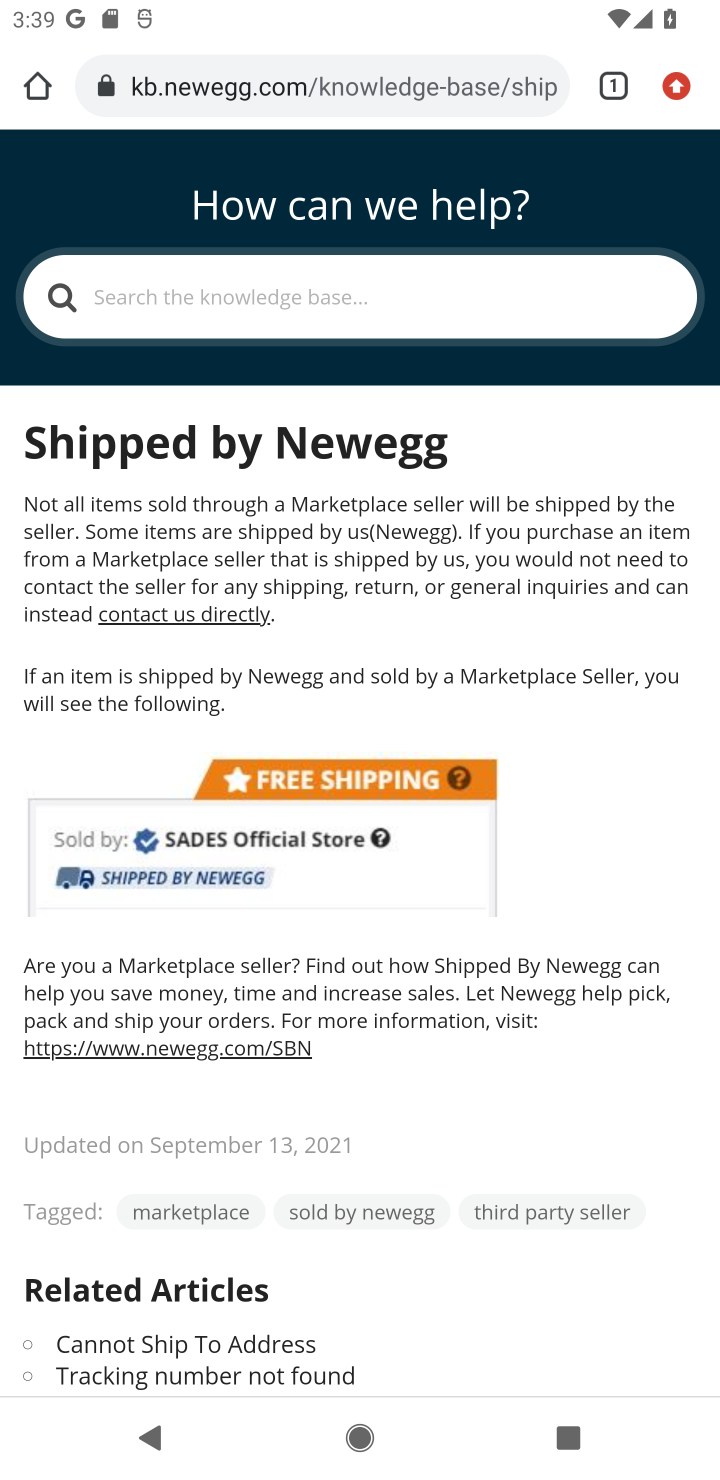
Step 23: task complete